Your task to perform on an android device: Open the calendar app, open the side menu, and click the "Day" option Image 0: 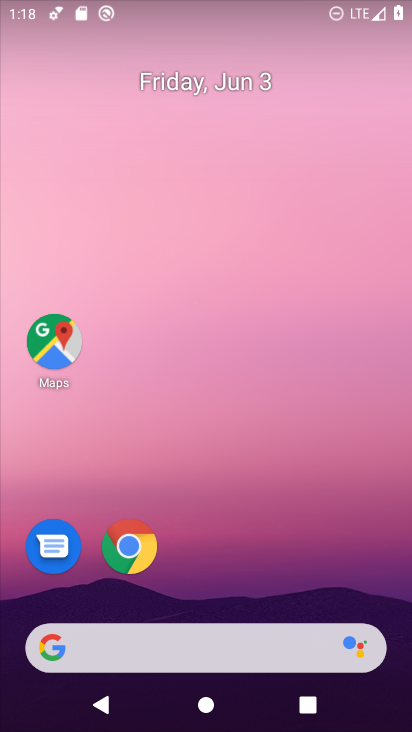
Step 0: drag from (235, 533) to (232, 164)
Your task to perform on an android device: Open the calendar app, open the side menu, and click the "Day" option Image 1: 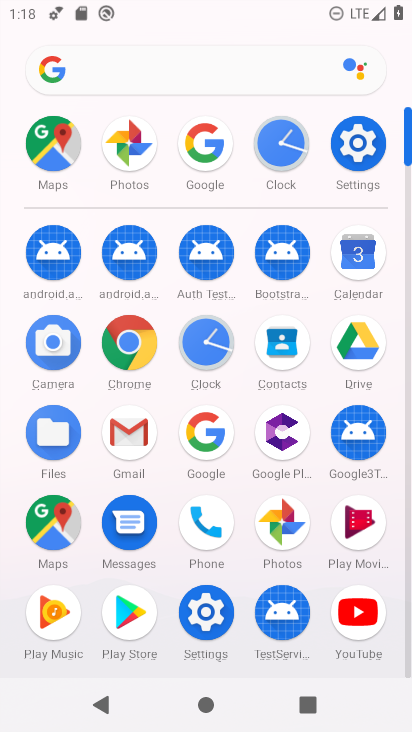
Step 1: click (357, 253)
Your task to perform on an android device: Open the calendar app, open the side menu, and click the "Day" option Image 2: 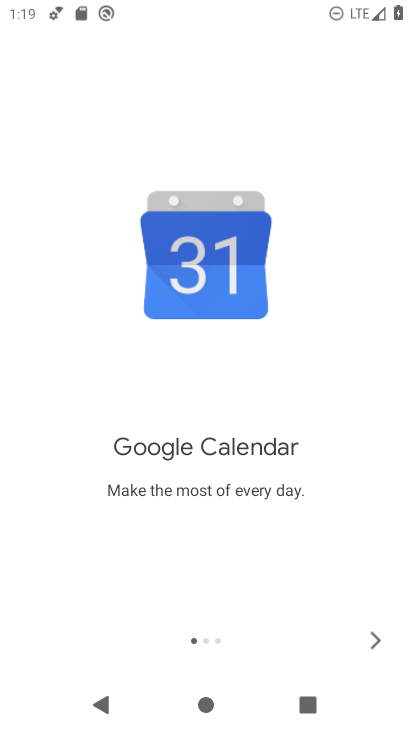
Step 2: click (379, 637)
Your task to perform on an android device: Open the calendar app, open the side menu, and click the "Day" option Image 3: 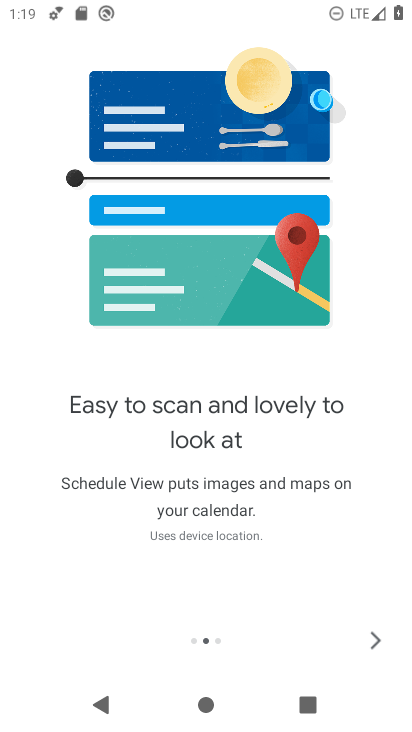
Step 3: click (379, 637)
Your task to perform on an android device: Open the calendar app, open the side menu, and click the "Day" option Image 4: 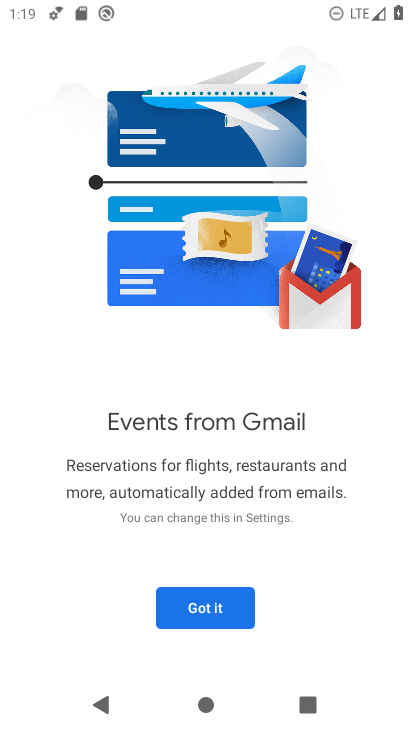
Step 4: click (209, 612)
Your task to perform on an android device: Open the calendar app, open the side menu, and click the "Day" option Image 5: 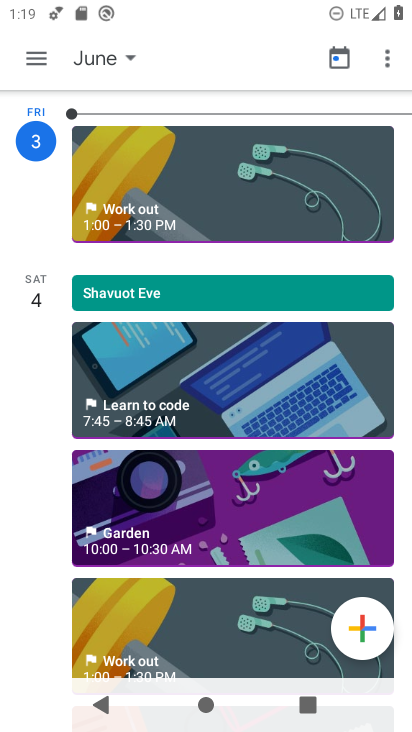
Step 5: click (28, 55)
Your task to perform on an android device: Open the calendar app, open the side menu, and click the "Day" option Image 6: 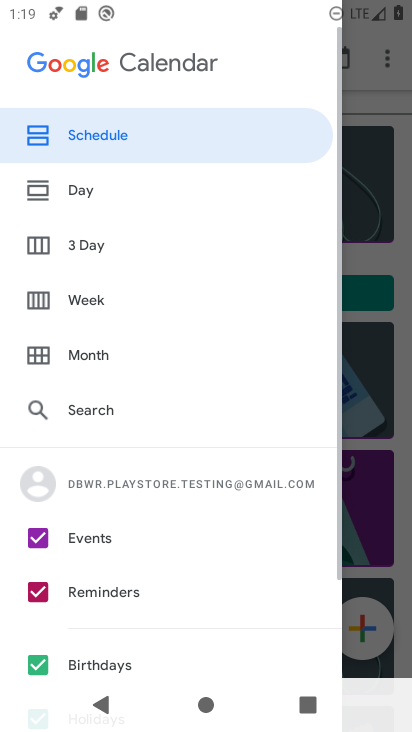
Step 6: click (94, 195)
Your task to perform on an android device: Open the calendar app, open the side menu, and click the "Day" option Image 7: 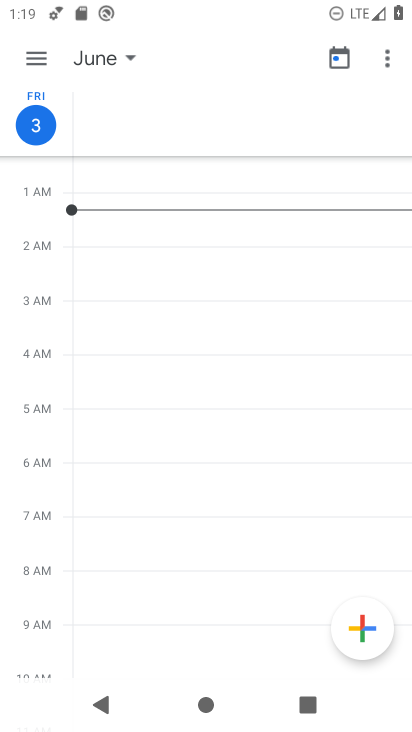
Step 7: task complete